Your task to perform on an android device: Go to network settings Image 0: 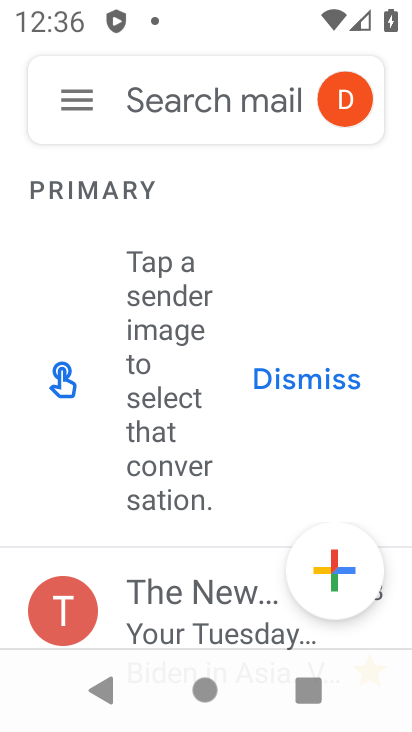
Step 0: press home button
Your task to perform on an android device: Go to network settings Image 1: 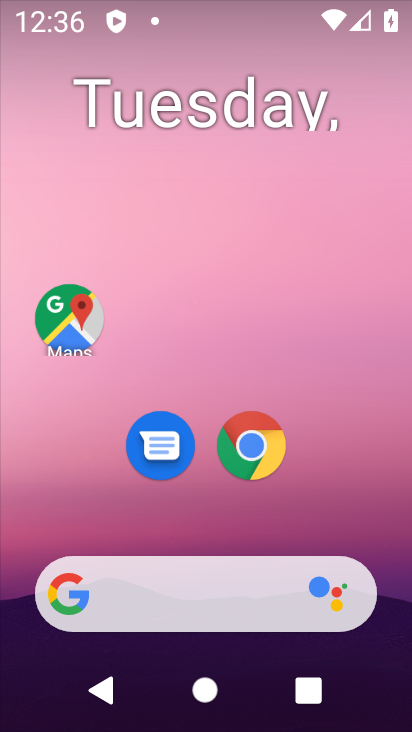
Step 1: drag from (104, 551) to (198, 44)
Your task to perform on an android device: Go to network settings Image 2: 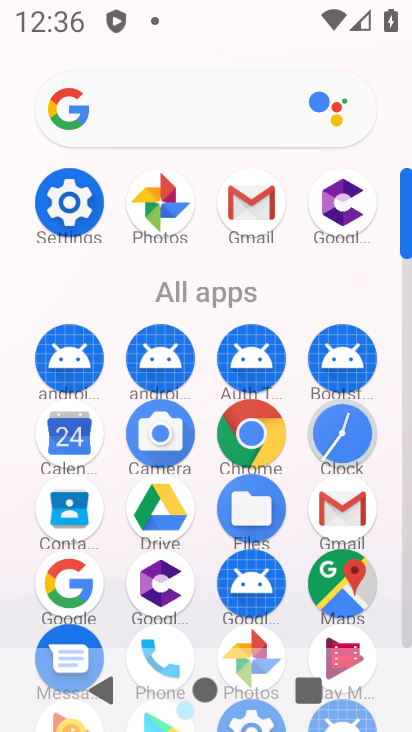
Step 2: drag from (112, 574) to (187, 387)
Your task to perform on an android device: Go to network settings Image 3: 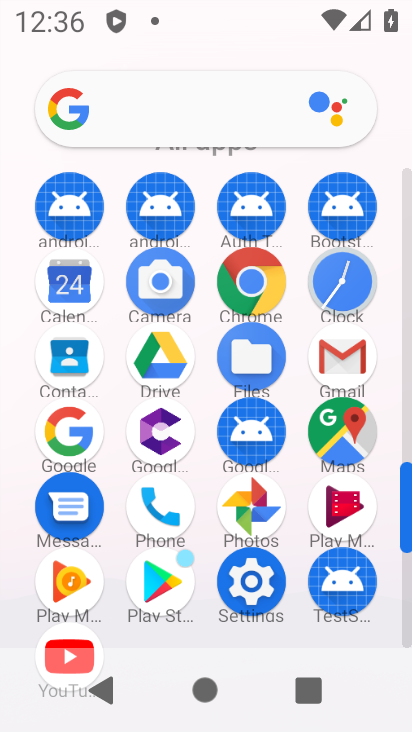
Step 3: click (253, 585)
Your task to perform on an android device: Go to network settings Image 4: 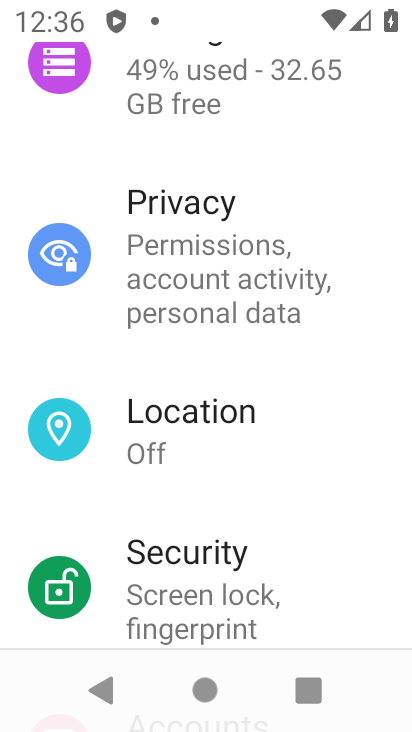
Step 4: drag from (250, 243) to (255, 686)
Your task to perform on an android device: Go to network settings Image 5: 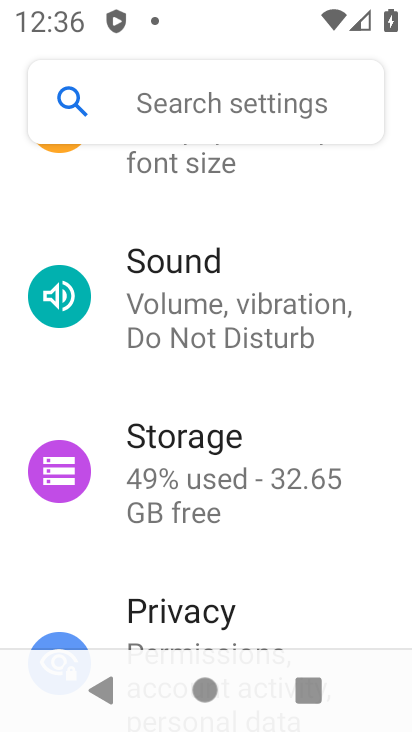
Step 5: drag from (314, 243) to (315, 573)
Your task to perform on an android device: Go to network settings Image 6: 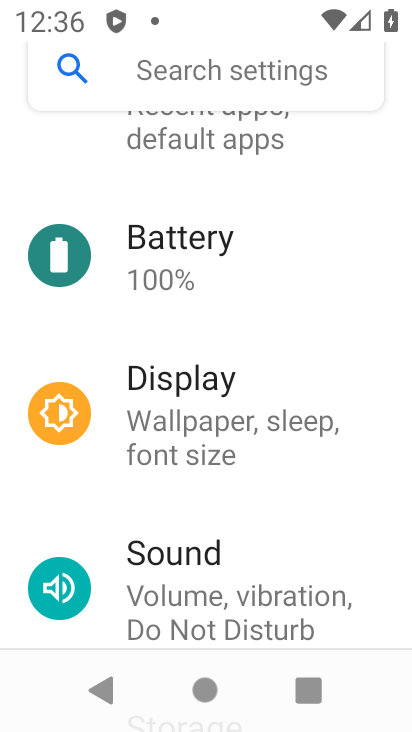
Step 6: drag from (262, 220) to (250, 637)
Your task to perform on an android device: Go to network settings Image 7: 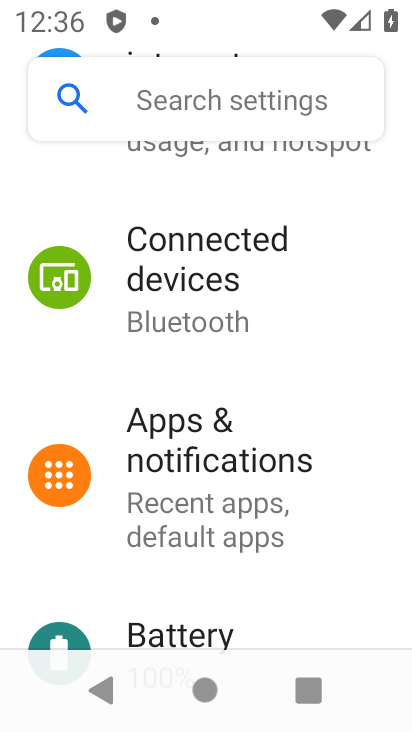
Step 7: drag from (235, 287) to (234, 620)
Your task to perform on an android device: Go to network settings Image 8: 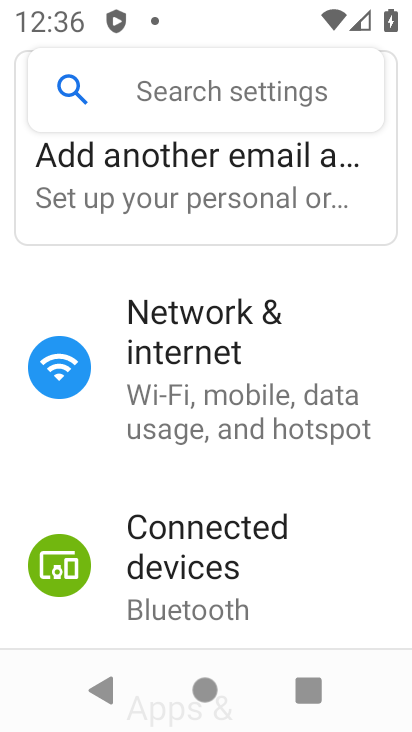
Step 8: click (178, 422)
Your task to perform on an android device: Go to network settings Image 9: 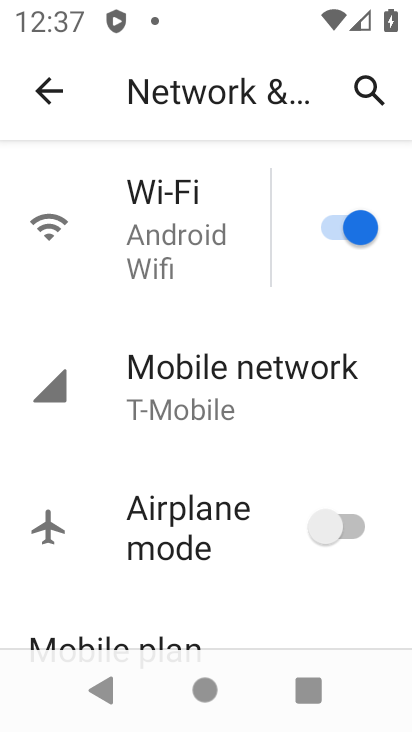
Step 9: click (254, 404)
Your task to perform on an android device: Go to network settings Image 10: 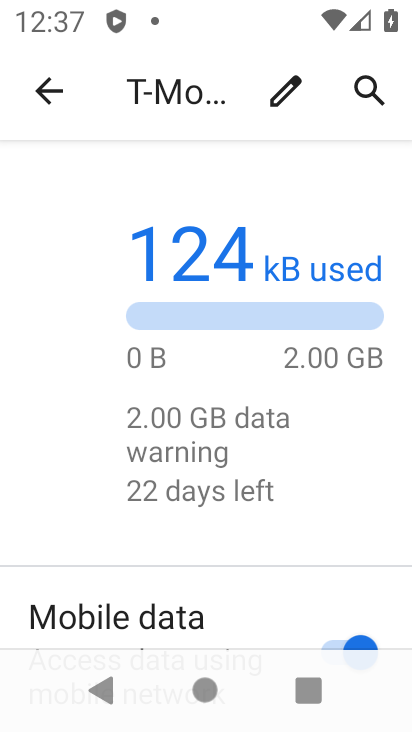
Step 10: task complete